Your task to perform on an android device: change the clock display to show seconds Image 0: 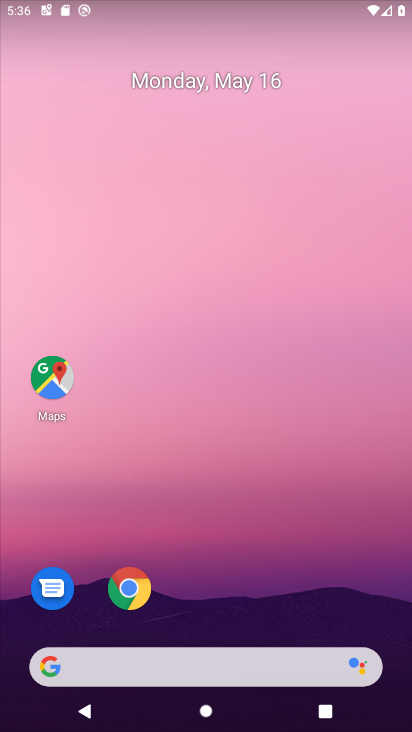
Step 0: drag from (268, 545) to (137, 21)
Your task to perform on an android device: change the clock display to show seconds Image 1: 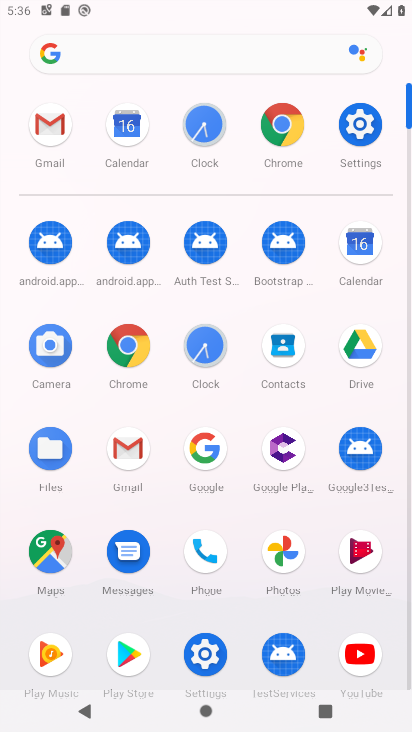
Step 1: click (207, 344)
Your task to perform on an android device: change the clock display to show seconds Image 2: 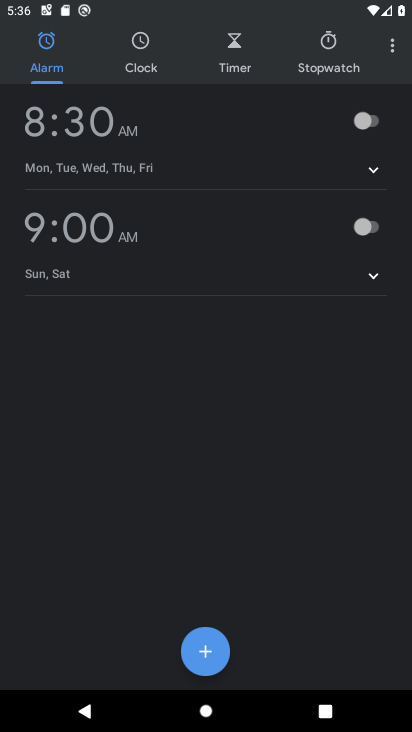
Step 2: click (394, 54)
Your task to perform on an android device: change the clock display to show seconds Image 3: 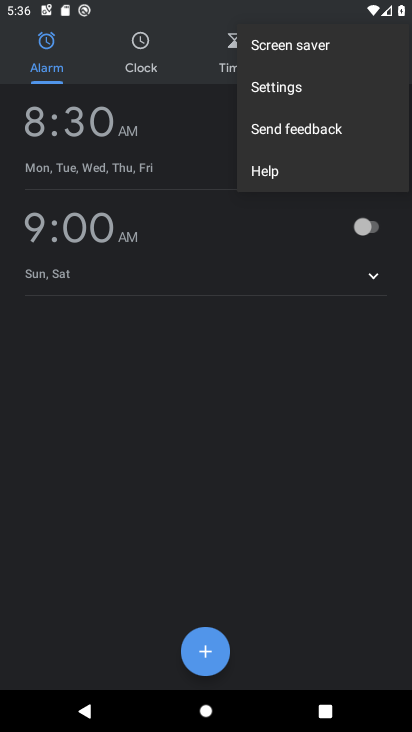
Step 3: click (274, 86)
Your task to perform on an android device: change the clock display to show seconds Image 4: 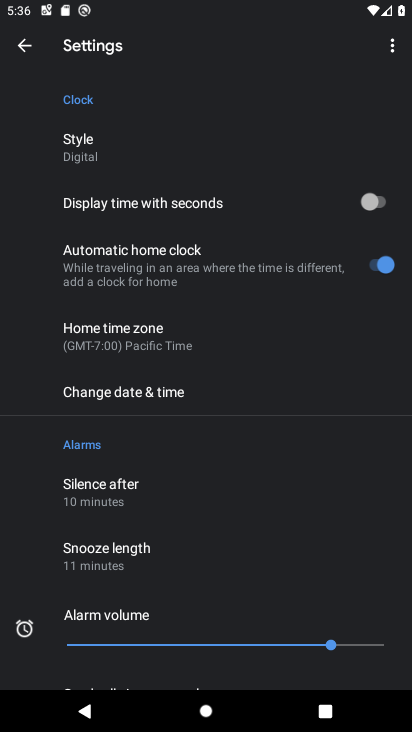
Step 4: task complete